Your task to perform on an android device: Open settings on Google Maps Image 0: 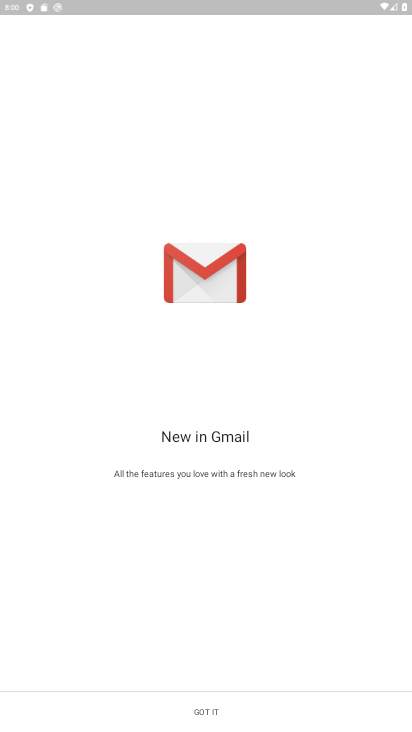
Step 0: press home button
Your task to perform on an android device: Open settings on Google Maps Image 1: 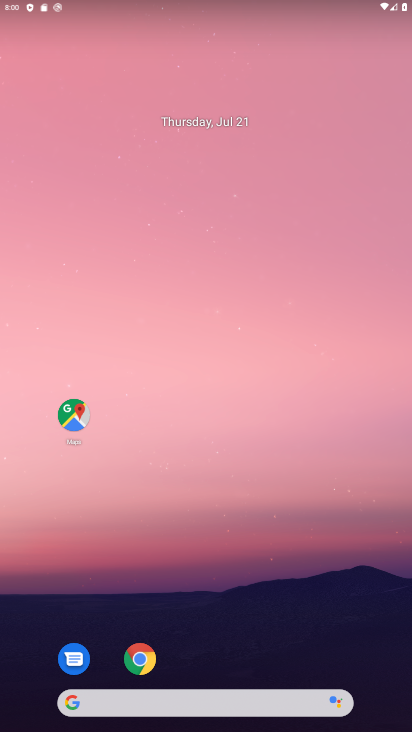
Step 1: click (75, 414)
Your task to perform on an android device: Open settings on Google Maps Image 2: 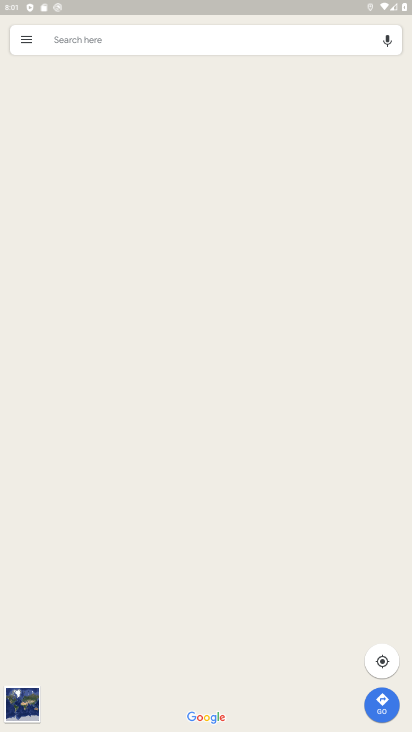
Step 2: click (25, 36)
Your task to perform on an android device: Open settings on Google Maps Image 3: 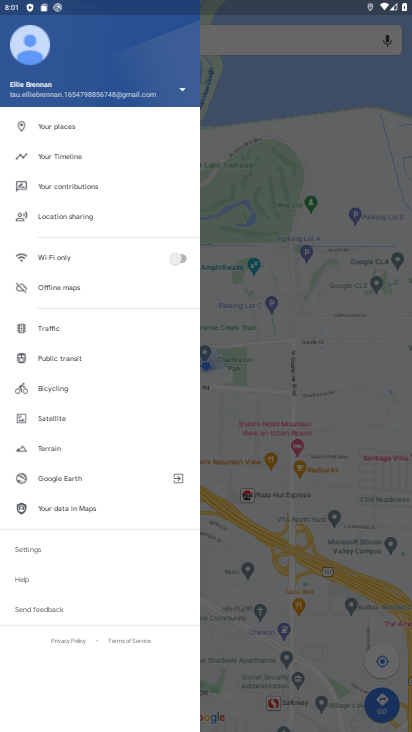
Step 3: click (36, 553)
Your task to perform on an android device: Open settings on Google Maps Image 4: 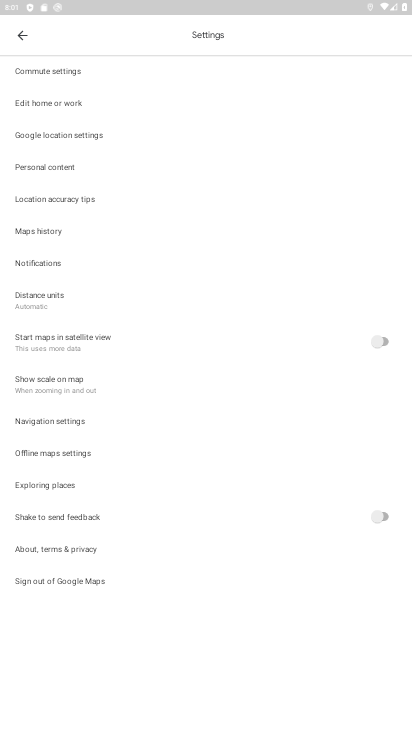
Step 4: task complete